Your task to perform on an android device: add a contact in the contacts app Image 0: 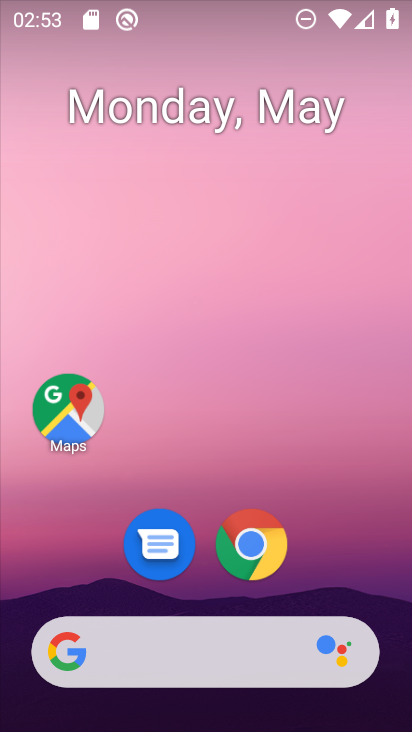
Step 0: drag from (357, 539) to (374, 233)
Your task to perform on an android device: add a contact in the contacts app Image 1: 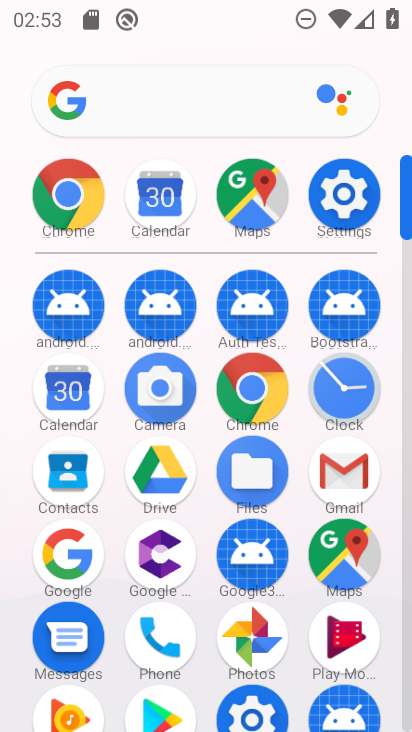
Step 1: click (82, 481)
Your task to perform on an android device: add a contact in the contacts app Image 2: 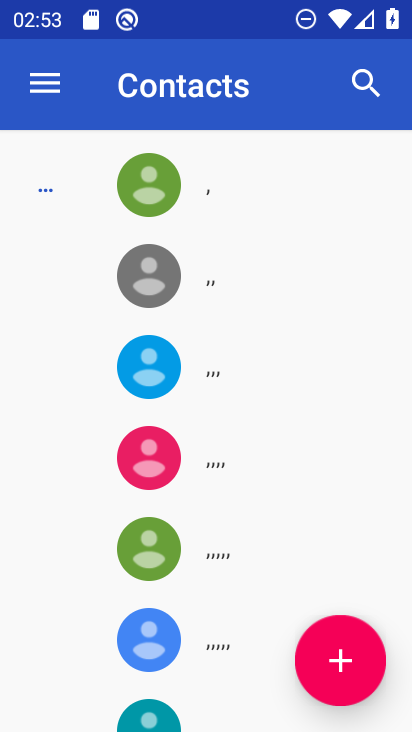
Step 2: click (333, 673)
Your task to perform on an android device: add a contact in the contacts app Image 3: 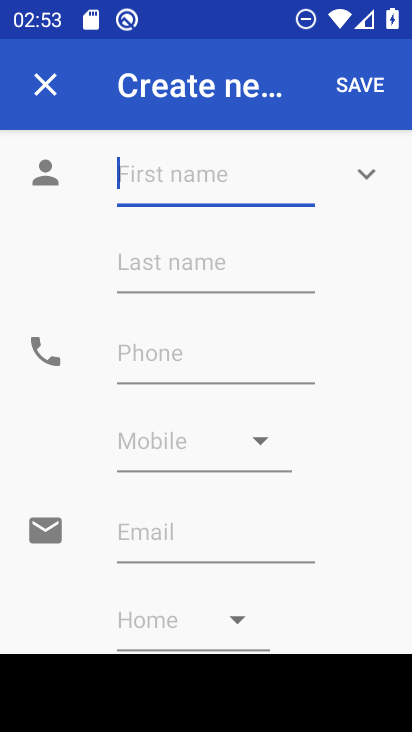
Step 3: click (236, 185)
Your task to perform on an android device: add a contact in the contacts app Image 4: 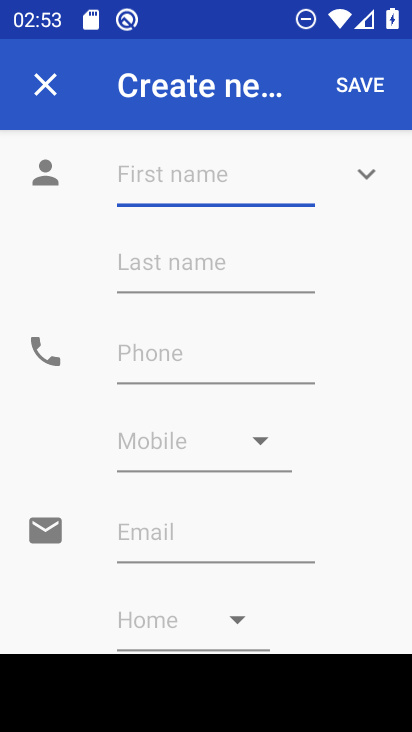
Step 4: type "fav"
Your task to perform on an android device: add a contact in the contacts app Image 5: 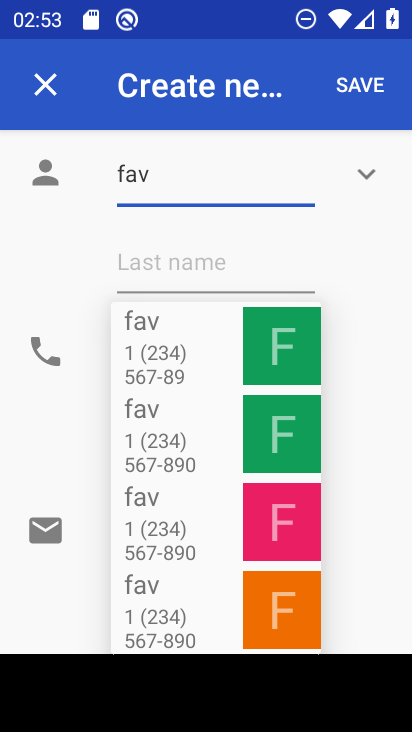
Step 5: click (396, 380)
Your task to perform on an android device: add a contact in the contacts app Image 6: 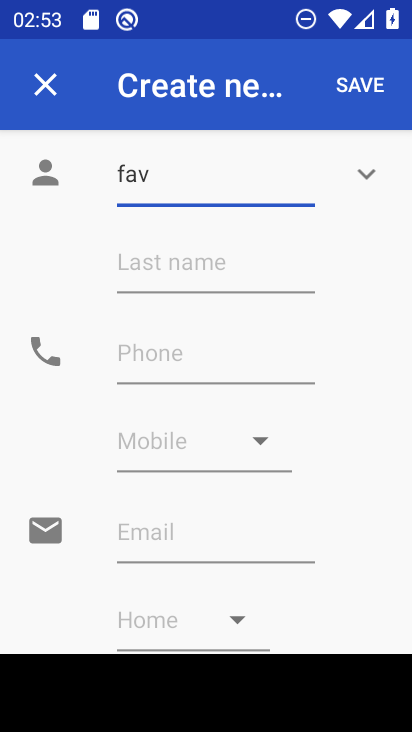
Step 6: click (254, 369)
Your task to perform on an android device: add a contact in the contacts app Image 7: 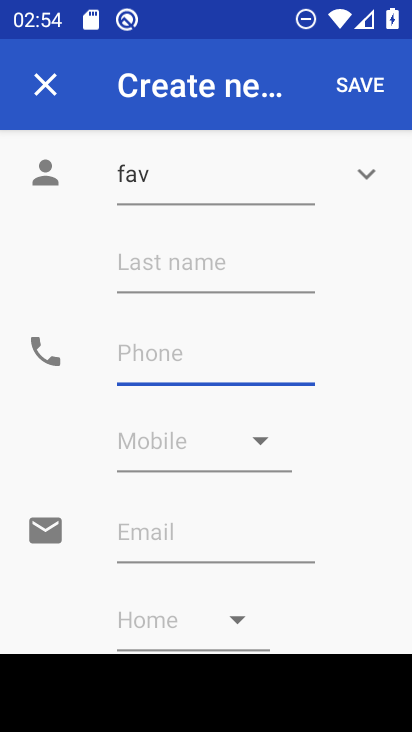
Step 7: type "123456789"
Your task to perform on an android device: add a contact in the contacts app Image 8: 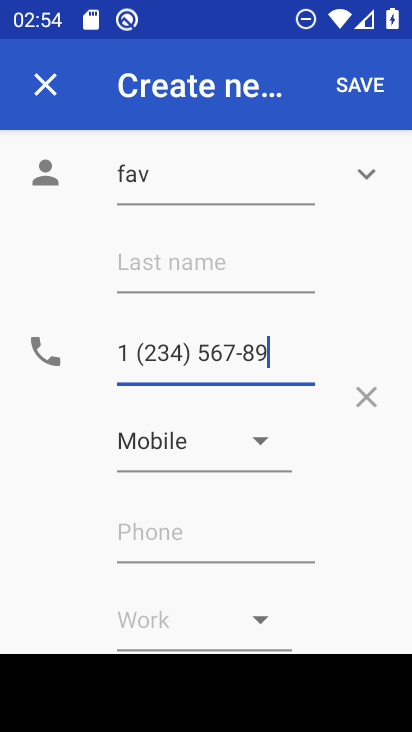
Step 8: click (369, 96)
Your task to perform on an android device: add a contact in the contacts app Image 9: 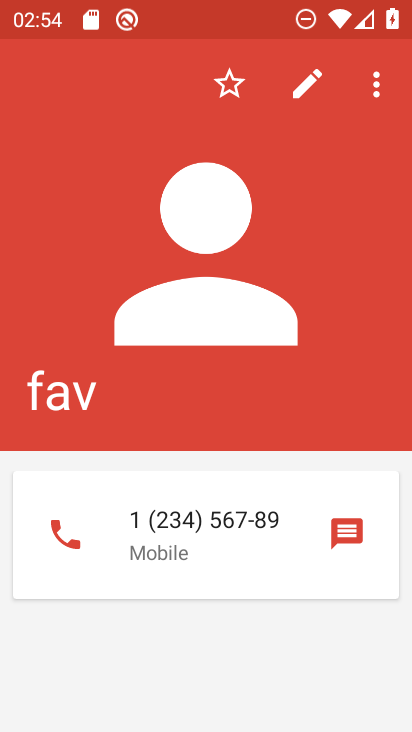
Step 9: task complete